Your task to perform on an android device: Go to Maps Image 0: 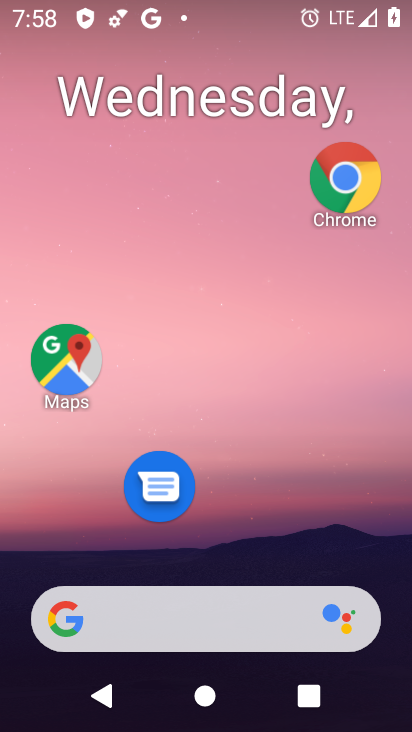
Step 0: drag from (195, 603) to (235, 271)
Your task to perform on an android device: Go to Maps Image 1: 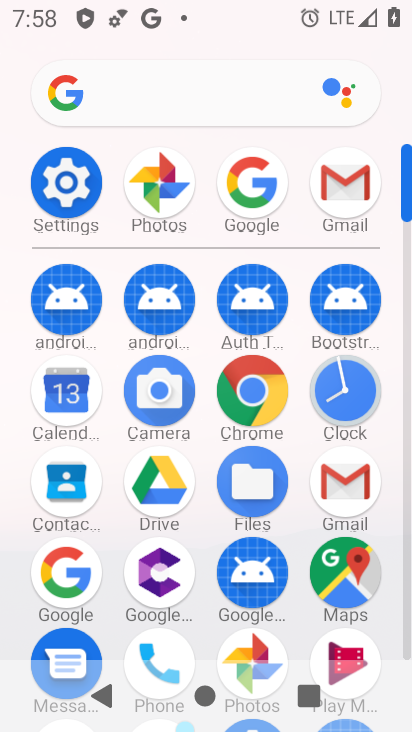
Step 1: drag from (225, 539) to (232, 277)
Your task to perform on an android device: Go to Maps Image 2: 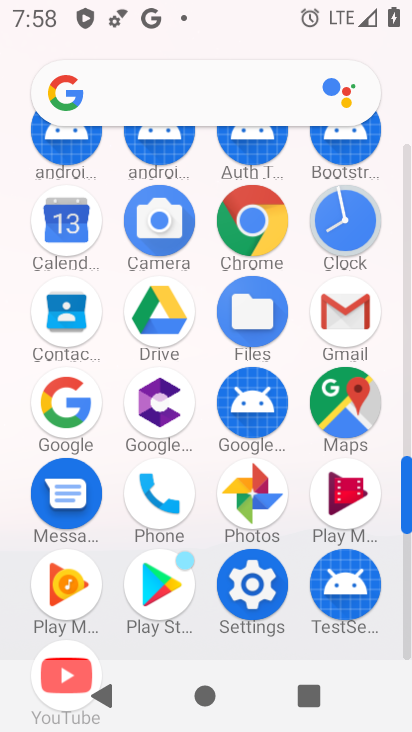
Step 2: click (332, 407)
Your task to perform on an android device: Go to Maps Image 3: 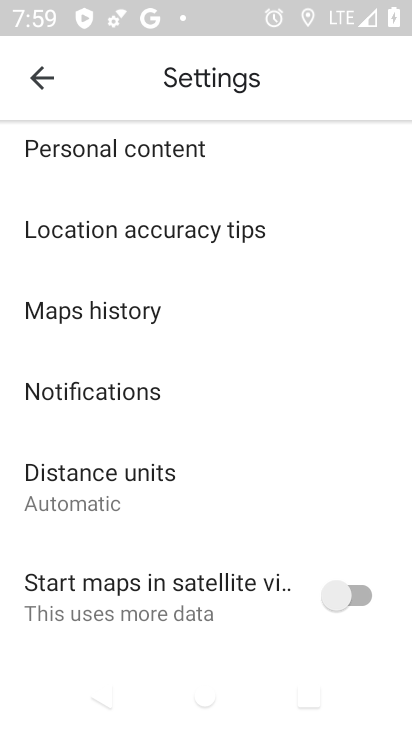
Step 3: click (46, 83)
Your task to perform on an android device: Go to Maps Image 4: 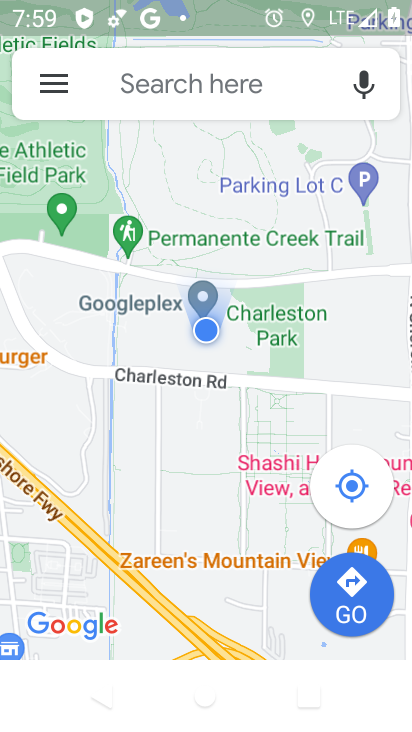
Step 4: task complete